Your task to perform on an android device: Search for "The Dispatcher" by John Scalzi on Goodreads Image 0: 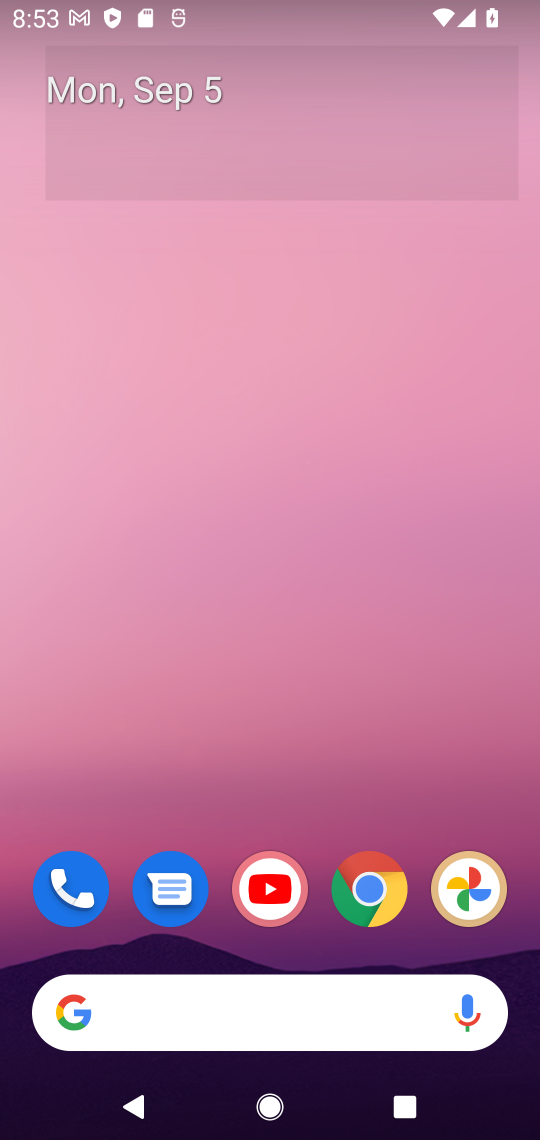
Step 0: click (198, 1006)
Your task to perform on an android device: Search for "The Dispatcher" by John Scalzi on Goodreads Image 1: 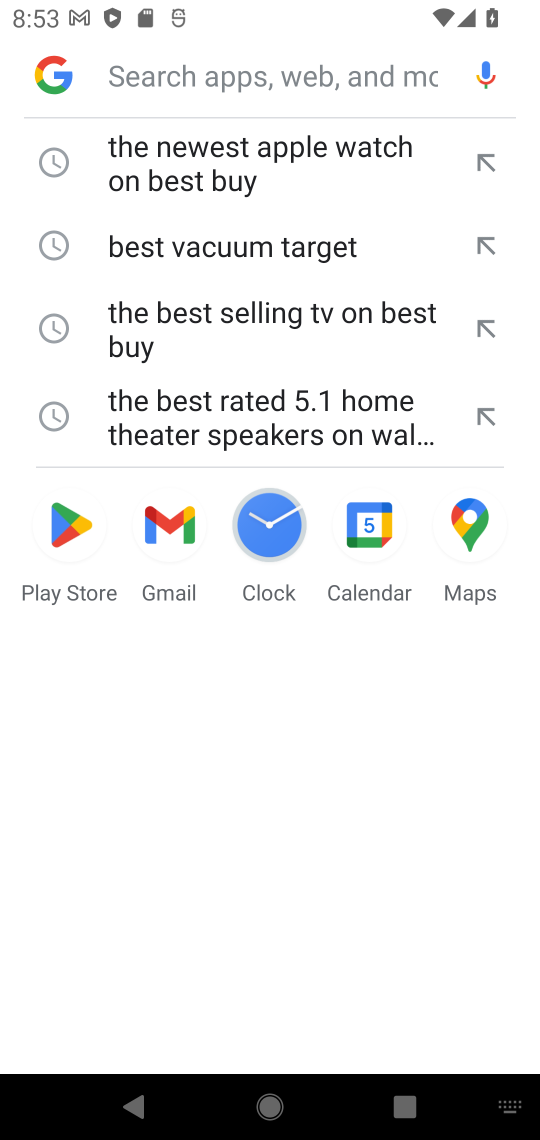
Step 1: type "The Dispatcher" by John Scalzi on Goodreads"
Your task to perform on an android device: Search for "The Dispatcher" by John Scalzi on Goodreads Image 2: 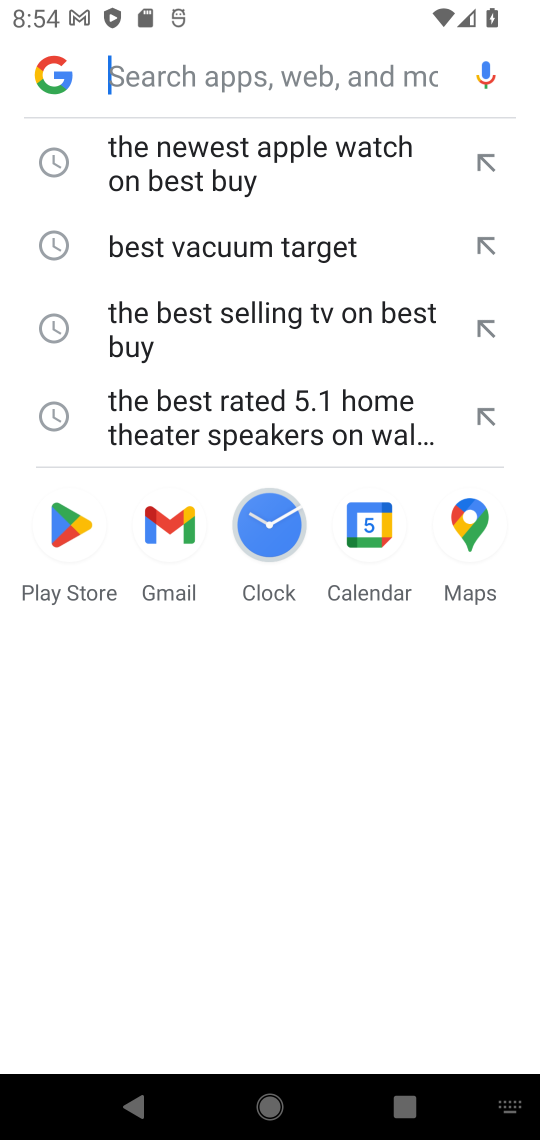
Step 2: type "The Dispatcher by john scalzi on Goodreads"
Your task to perform on an android device: Search for "The Dispatcher" by John Scalzi on Goodreads Image 3: 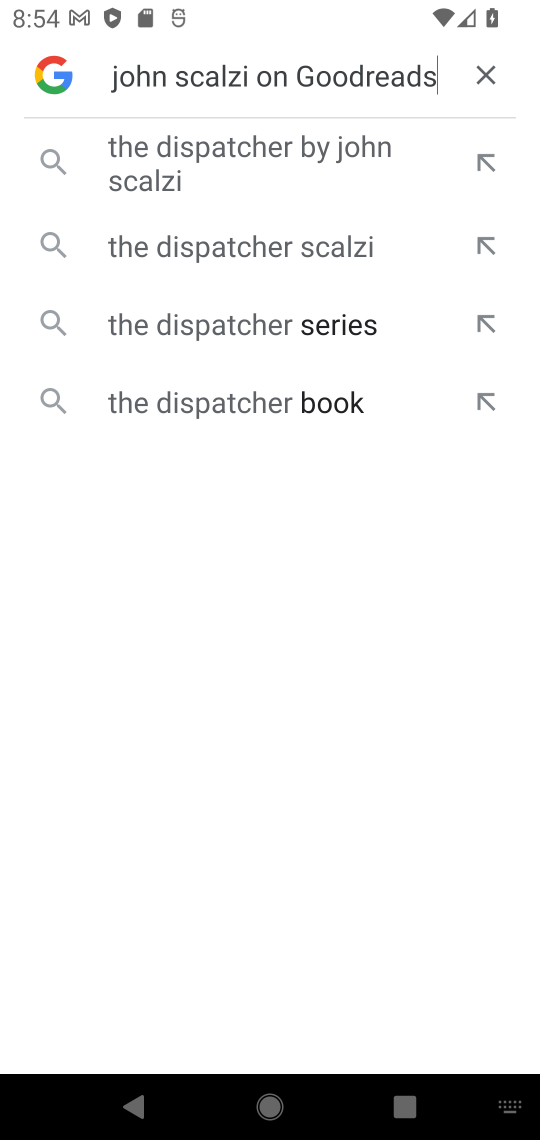
Step 3: click (272, 161)
Your task to perform on an android device: Search for "The Dispatcher" by John Scalzi on Goodreads Image 4: 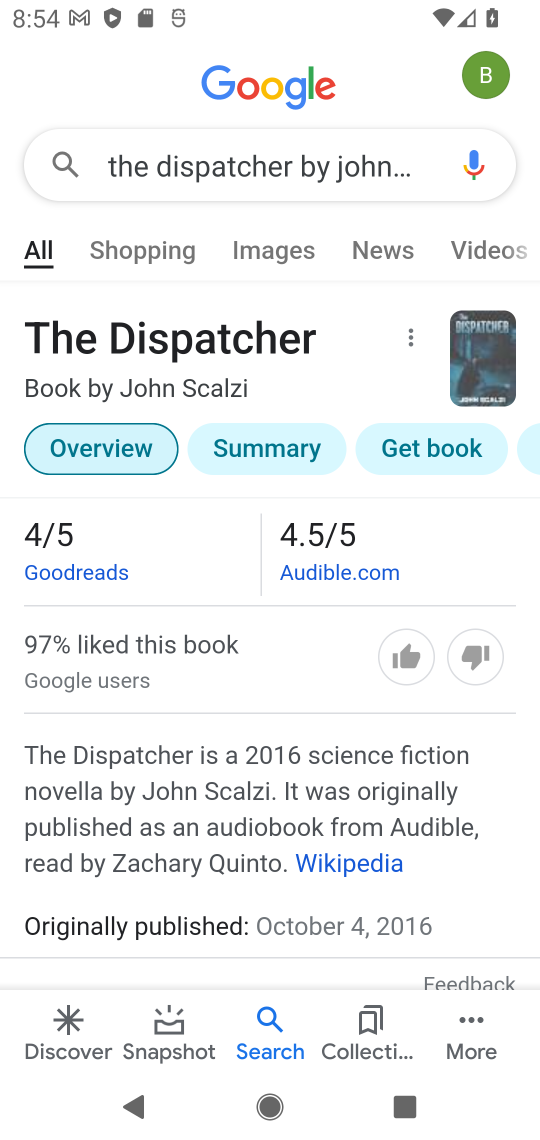
Step 4: click (255, 435)
Your task to perform on an android device: Search for "The Dispatcher" by John Scalzi on Goodreads Image 5: 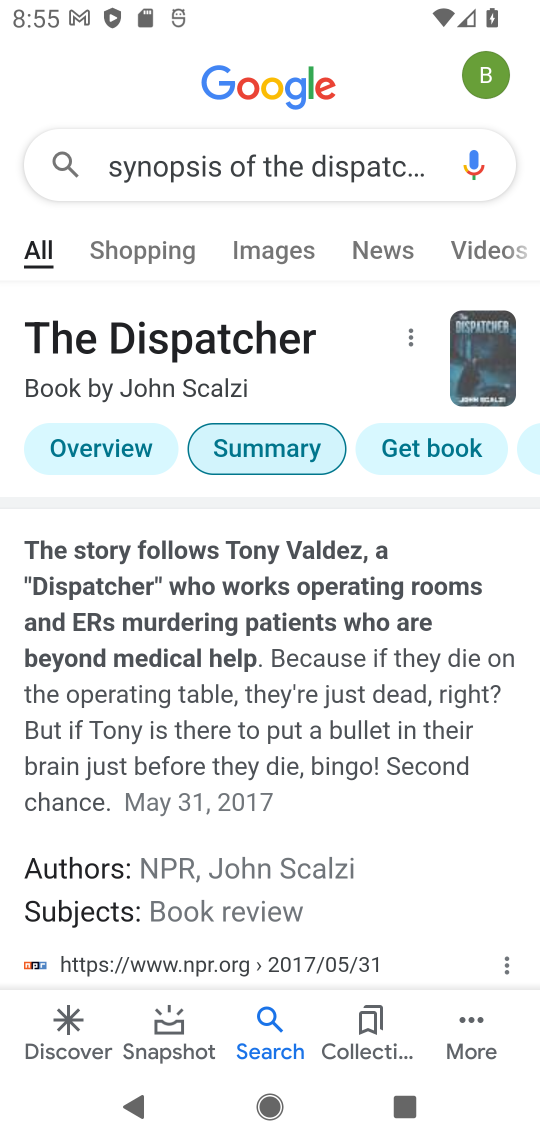
Step 5: task complete